Your task to perform on an android device: open chrome privacy settings Image 0: 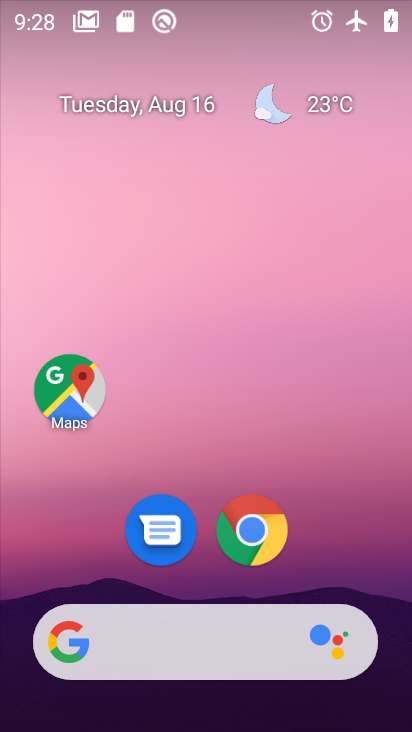
Step 0: drag from (339, 547) to (330, 152)
Your task to perform on an android device: open chrome privacy settings Image 1: 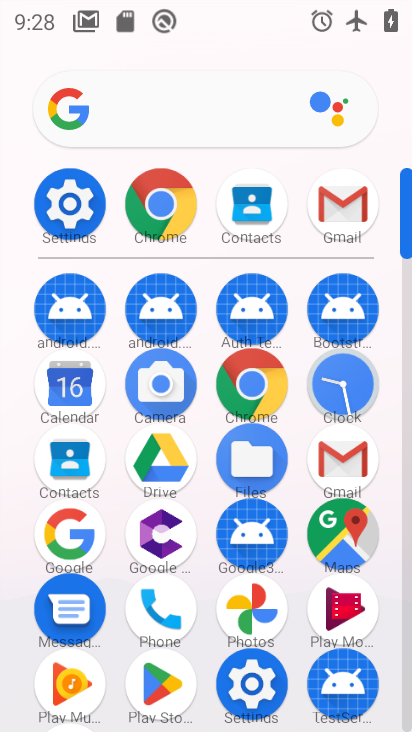
Step 1: click (250, 709)
Your task to perform on an android device: open chrome privacy settings Image 2: 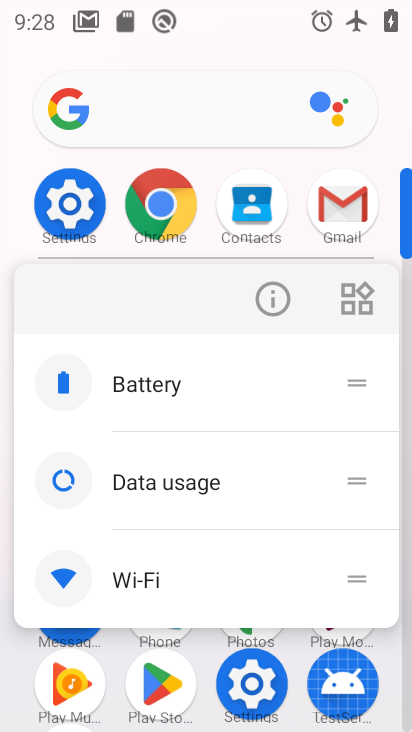
Step 2: click (160, 211)
Your task to perform on an android device: open chrome privacy settings Image 3: 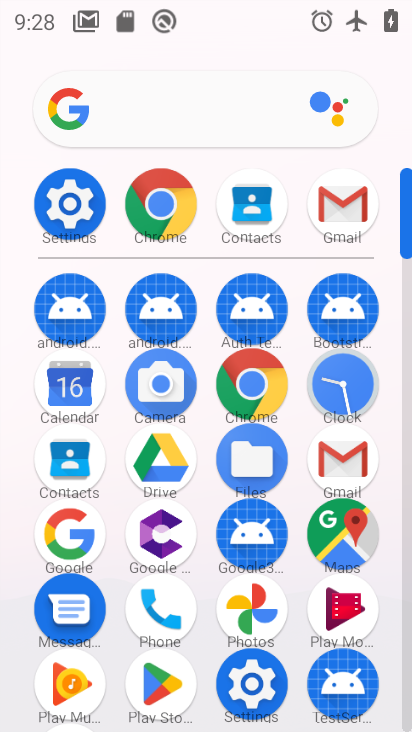
Step 3: click (257, 383)
Your task to perform on an android device: open chrome privacy settings Image 4: 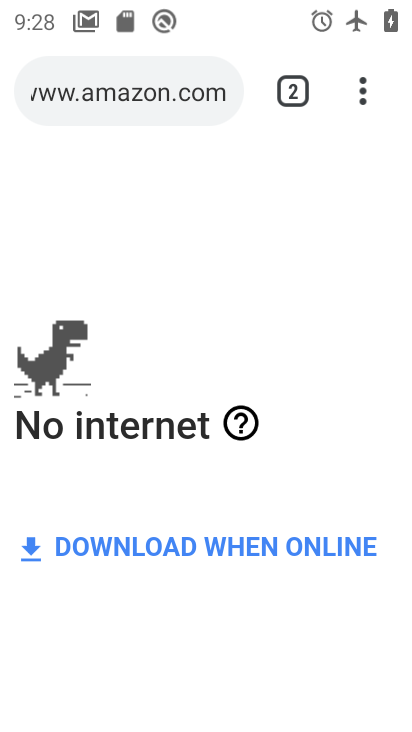
Step 4: drag from (375, 74) to (184, 572)
Your task to perform on an android device: open chrome privacy settings Image 5: 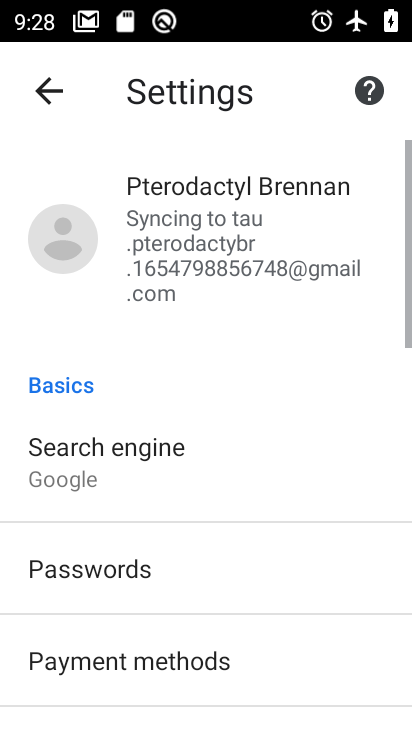
Step 5: drag from (336, 611) to (405, 272)
Your task to perform on an android device: open chrome privacy settings Image 6: 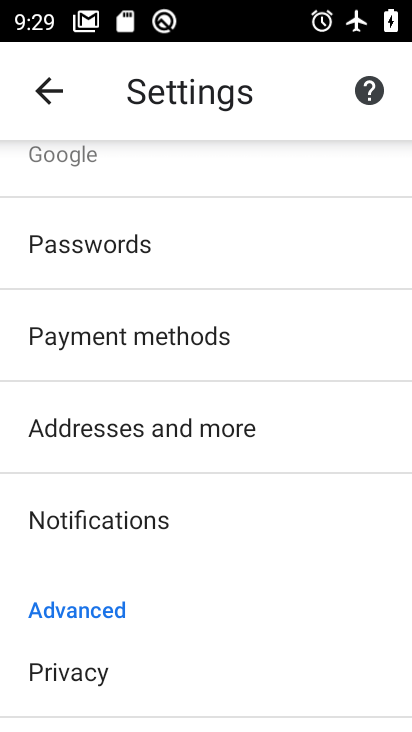
Step 6: click (100, 668)
Your task to perform on an android device: open chrome privacy settings Image 7: 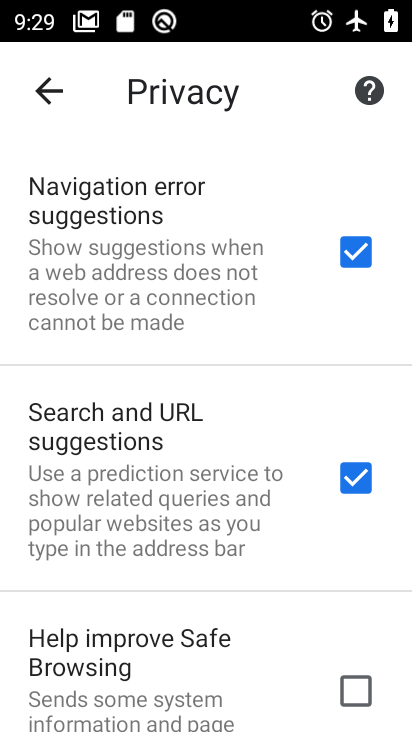
Step 7: task complete